Your task to perform on an android device: open app "The Home Depot" Image 0: 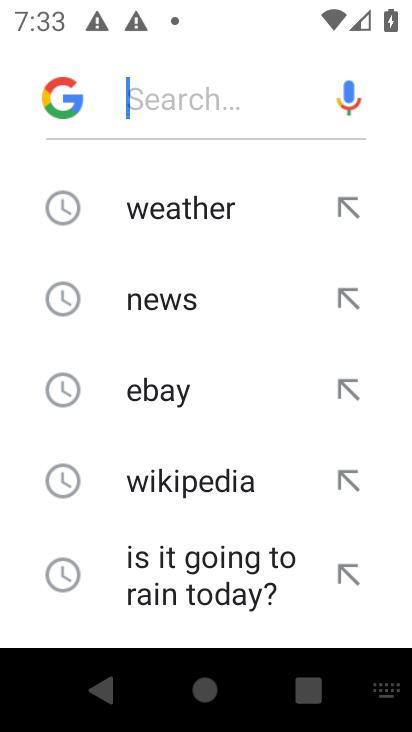
Step 0: press home button
Your task to perform on an android device: open app "The Home Depot" Image 1: 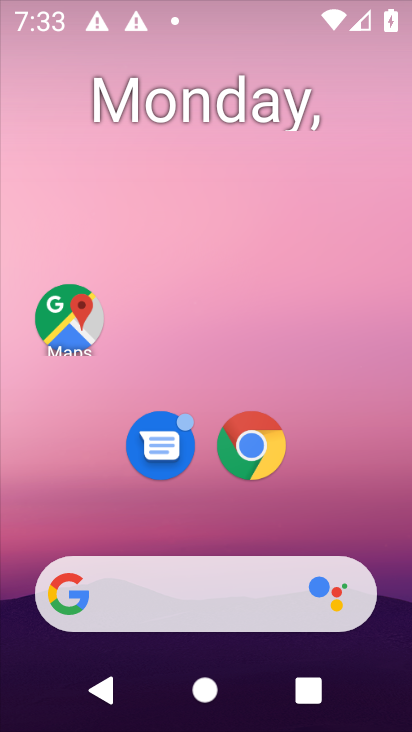
Step 1: drag from (393, 600) to (199, 109)
Your task to perform on an android device: open app "The Home Depot" Image 2: 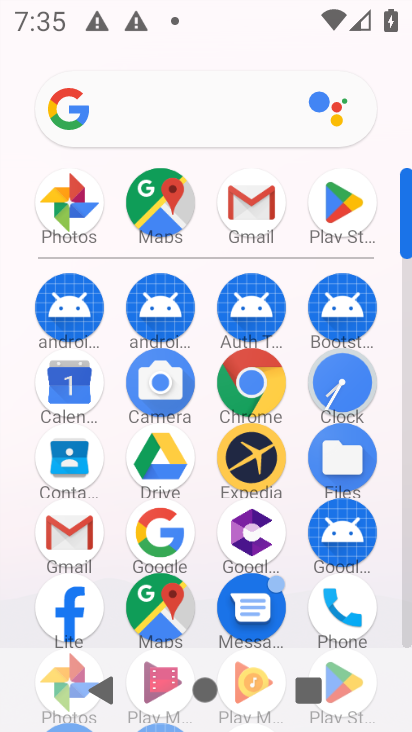
Step 2: click (333, 201)
Your task to perform on an android device: open app "The Home Depot" Image 3: 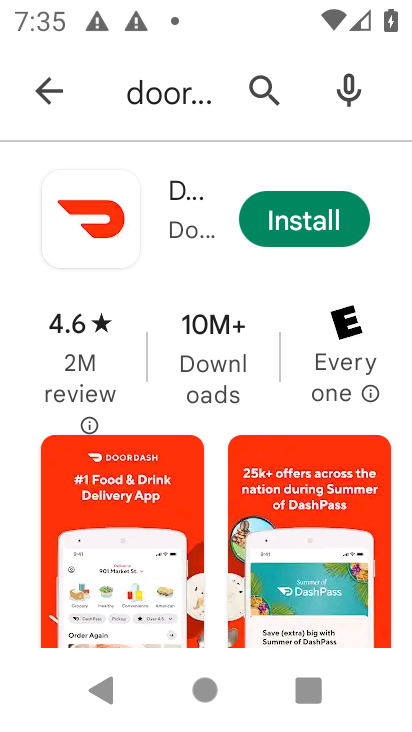
Step 3: press back button
Your task to perform on an android device: open app "The Home Depot" Image 4: 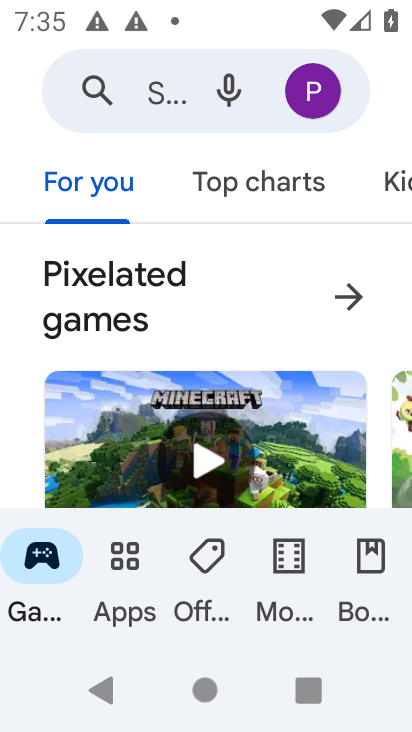
Step 4: click (159, 86)
Your task to perform on an android device: open app "The Home Depot" Image 5: 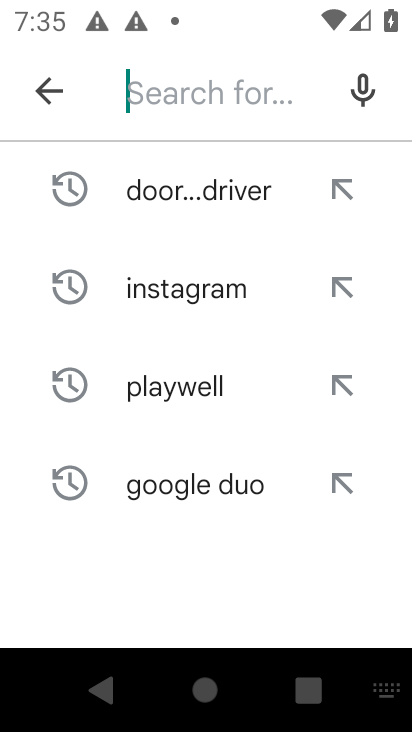
Step 5: type "The Home Depot"
Your task to perform on an android device: open app "The Home Depot" Image 6: 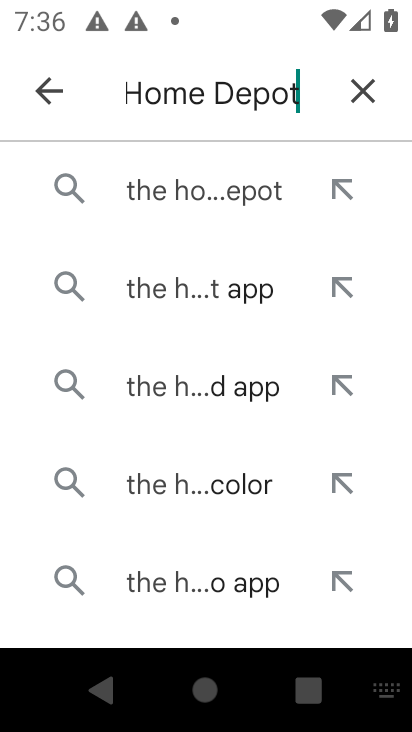
Step 6: type "]"
Your task to perform on an android device: open app "The Home Depot" Image 7: 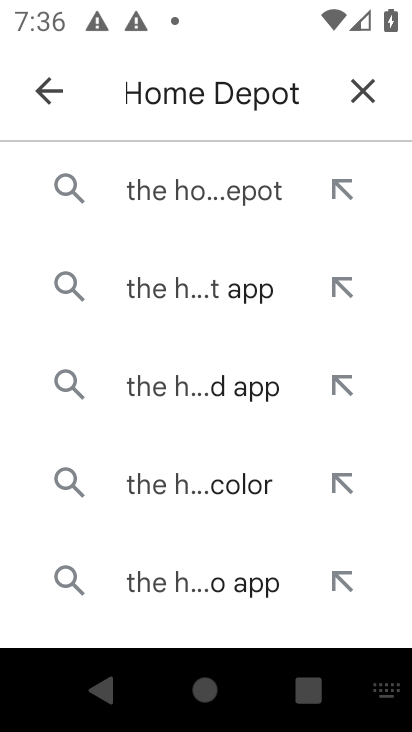
Step 7: click (193, 185)
Your task to perform on an android device: open app "The Home Depot" Image 8: 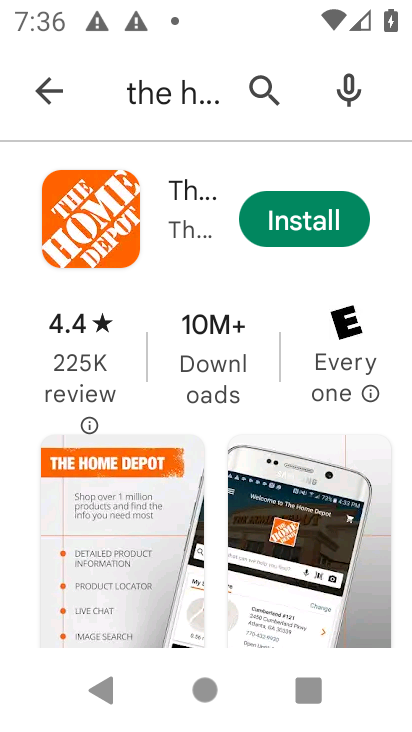
Step 8: task complete